Your task to perform on an android device: turn on priority inbox in the gmail app Image 0: 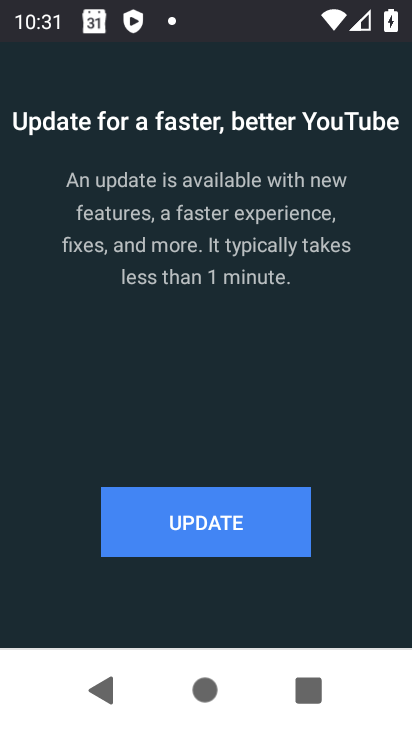
Step 0: press back button
Your task to perform on an android device: turn on priority inbox in the gmail app Image 1: 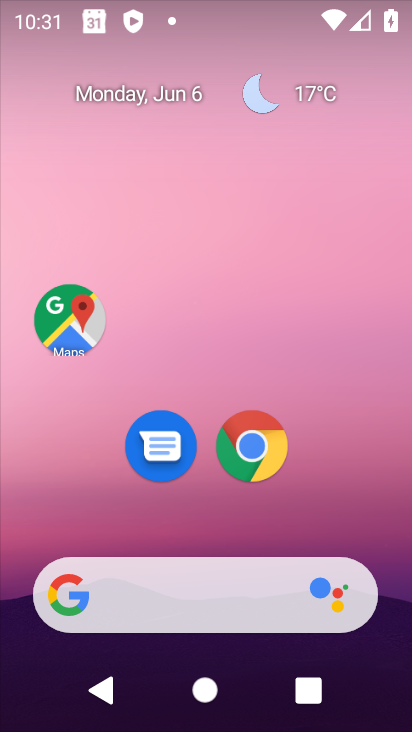
Step 1: drag from (395, 650) to (307, 40)
Your task to perform on an android device: turn on priority inbox in the gmail app Image 2: 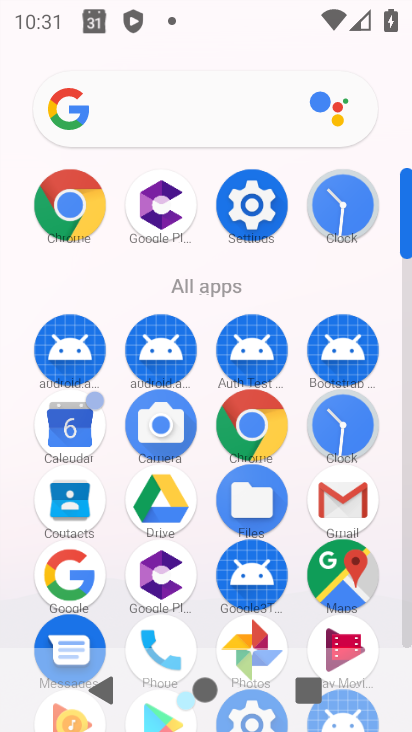
Step 2: click (343, 500)
Your task to perform on an android device: turn on priority inbox in the gmail app Image 3: 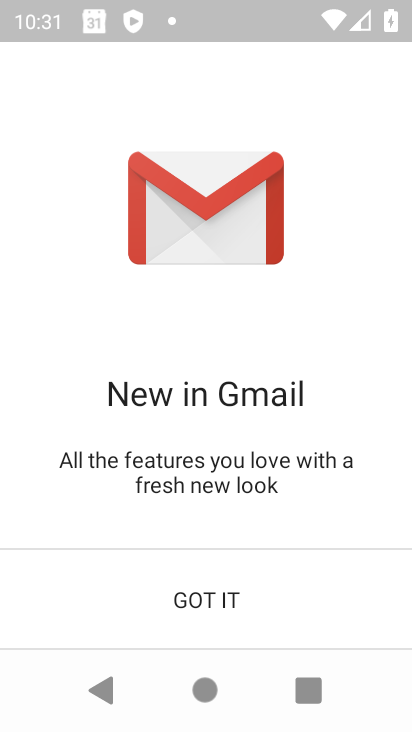
Step 3: click (215, 591)
Your task to perform on an android device: turn on priority inbox in the gmail app Image 4: 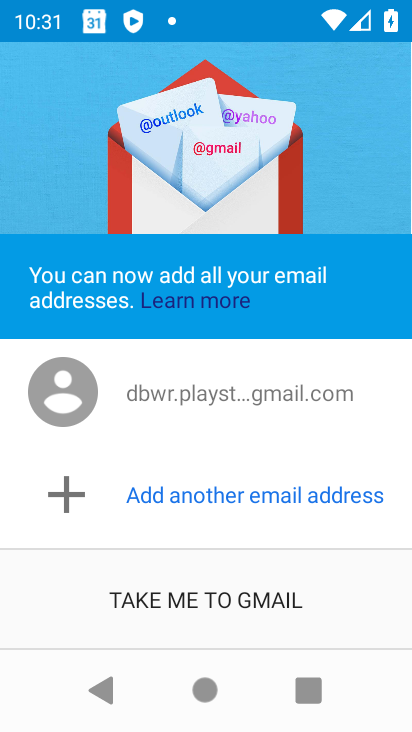
Step 4: click (215, 591)
Your task to perform on an android device: turn on priority inbox in the gmail app Image 5: 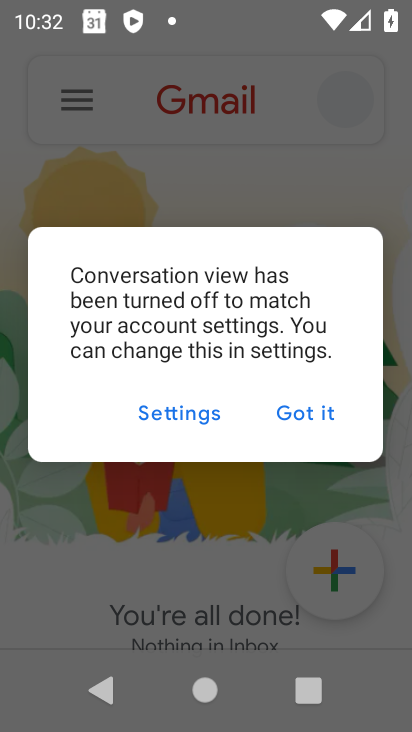
Step 5: click (282, 405)
Your task to perform on an android device: turn on priority inbox in the gmail app Image 6: 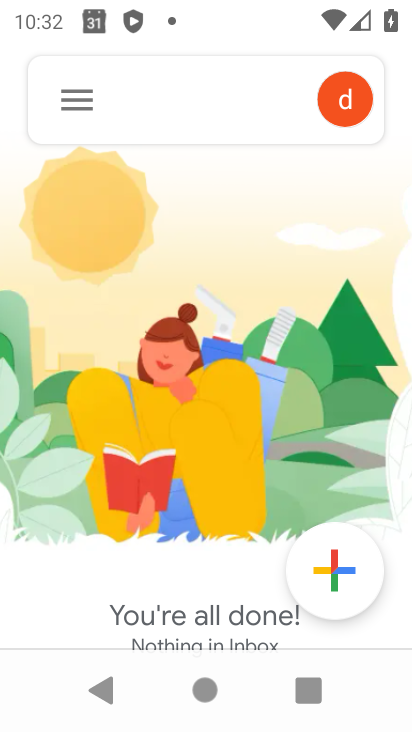
Step 6: click (73, 92)
Your task to perform on an android device: turn on priority inbox in the gmail app Image 7: 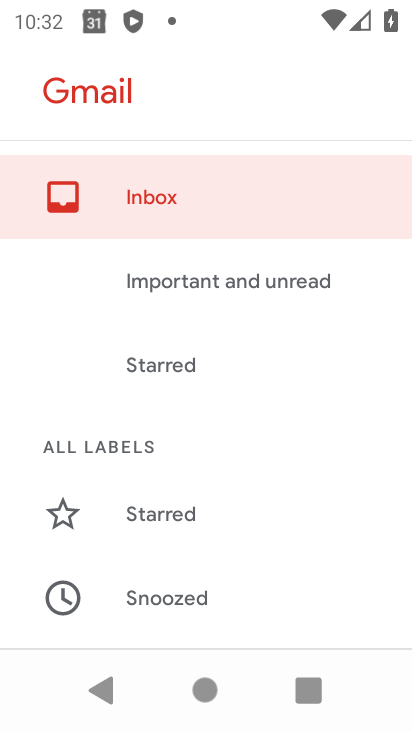
Step 7: drag from (220, 553) to (220, 141)
Your task to perform on an android device: turn on priority inbox in the gmail app Image 8: 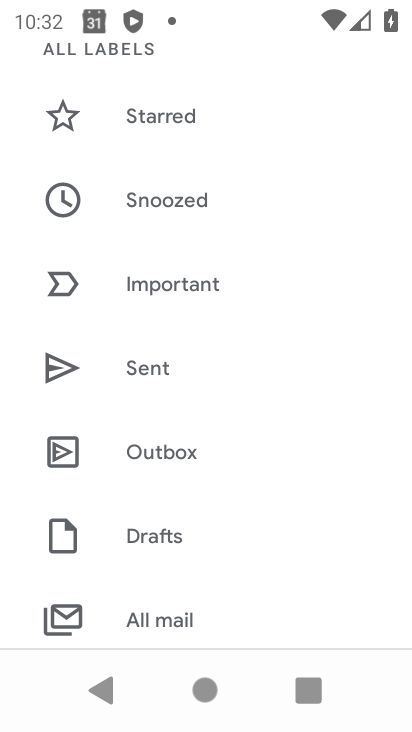
Step 8: drag from (220, 606) to (223, 202)
Your task to perform on an android device: turn on priority inbox in the gmail app Image 9: 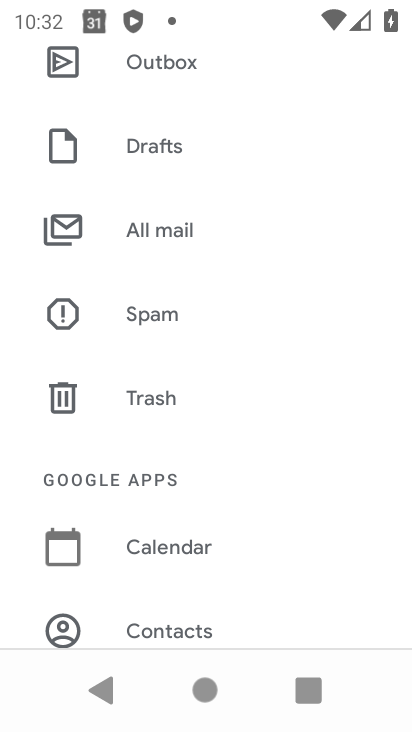
Step 9: drag from (224, 617) to (273, 139)
Your task to perform on an android device: turn on priority inbox in the gmail app Image 10: 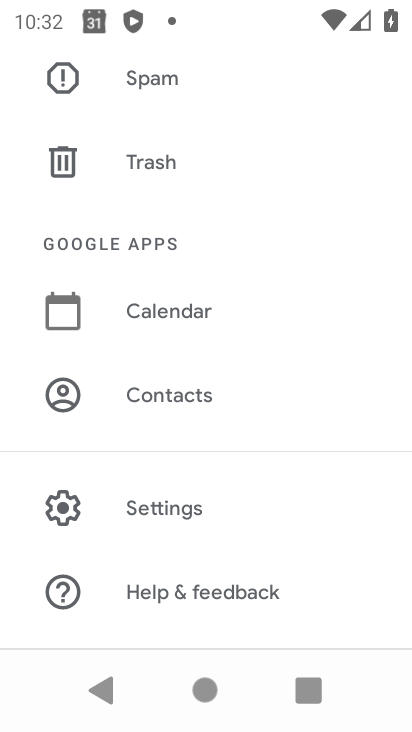
Step 10: click (192, 506)
Your task to perform on an android device: turn on priority inbox in the gmail app Image 11: 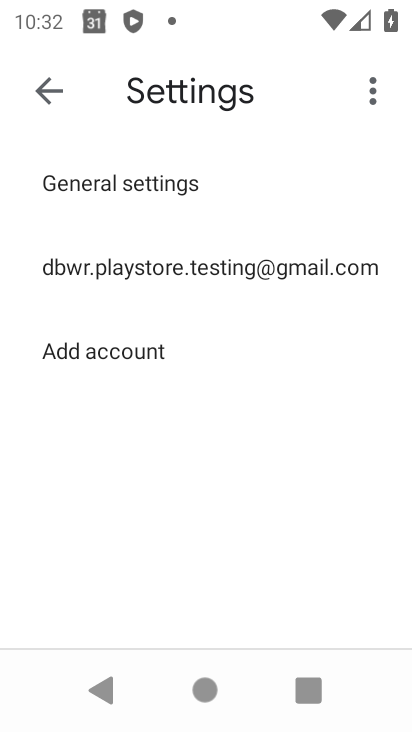
Step 11: click (137, 263)
Your task to perform on an android device: turn on priority inbox in the gmail app Image 12: 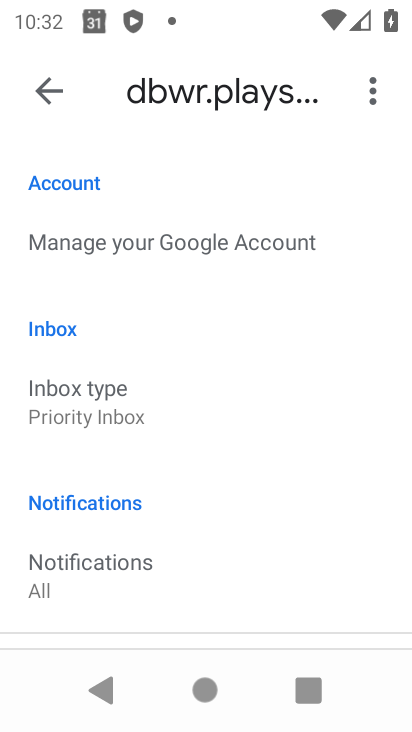
Step 12: task complete